Your task to perform on an android device: toggle data saver in the chrome app Image 0: 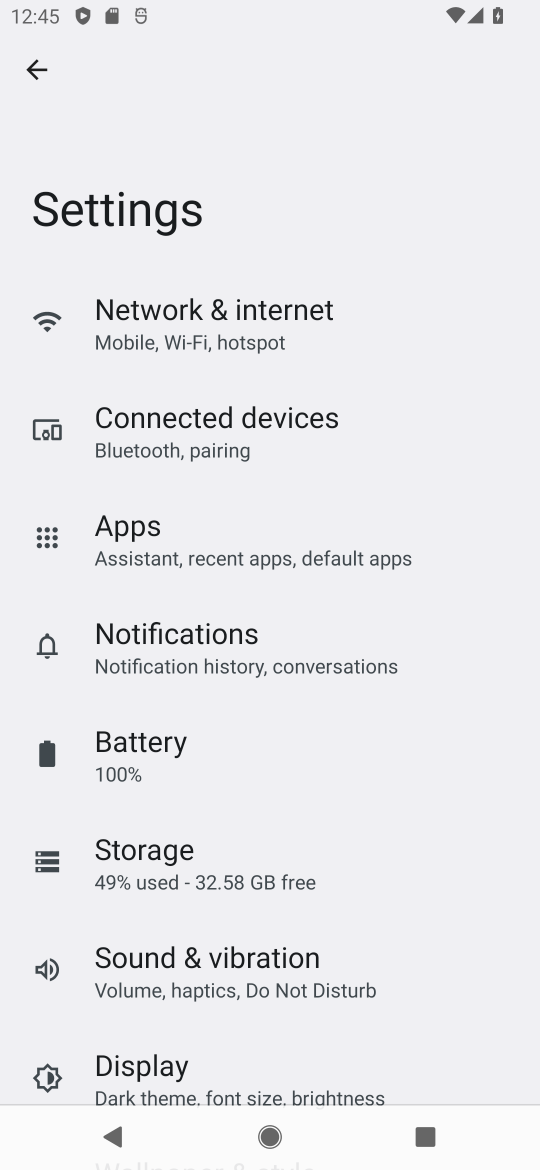
Step 0: press back button
Your task to perform on an android device: toggle data saver in the chrome app Image 1: 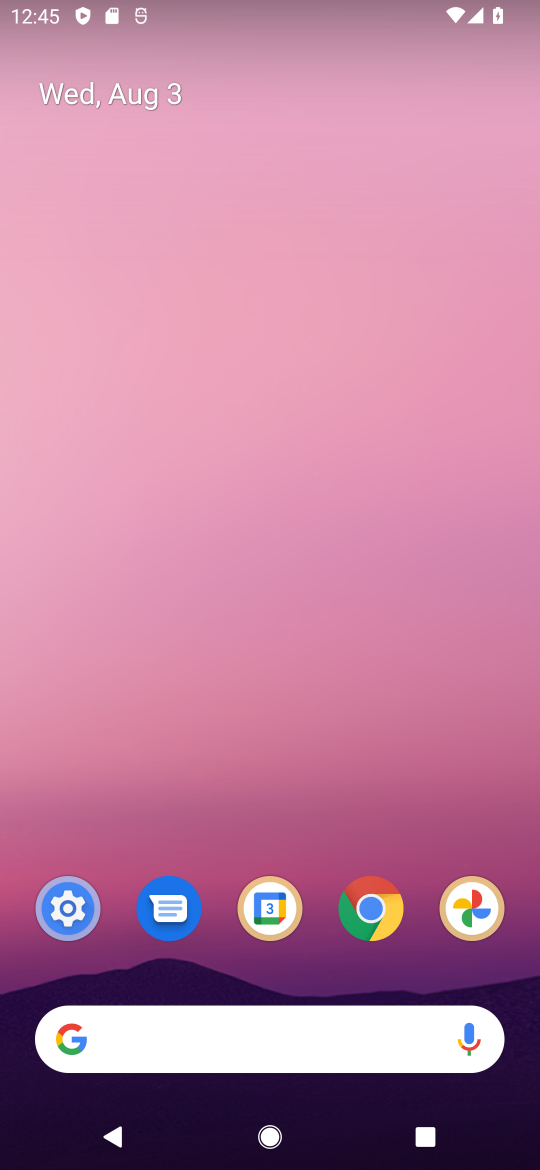
Step 1: click (367, 905)
Your task to perform on an android device: toggle data saver in the chrome app Image 2: 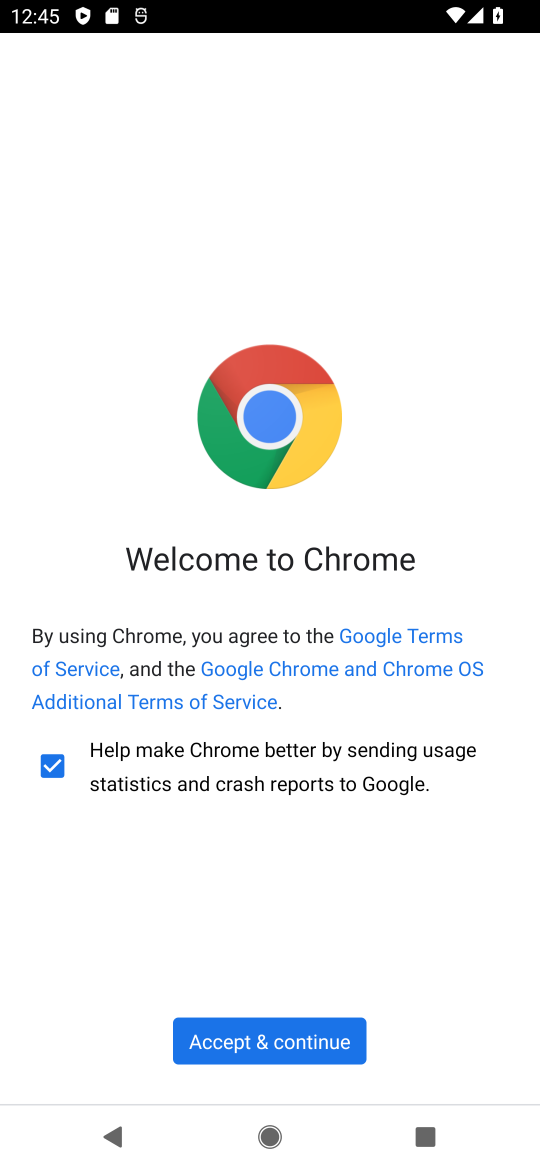
Step 2: click (242, 1035)
Your task to perform on an android device: toggle data saver in the chrome app Image 3: 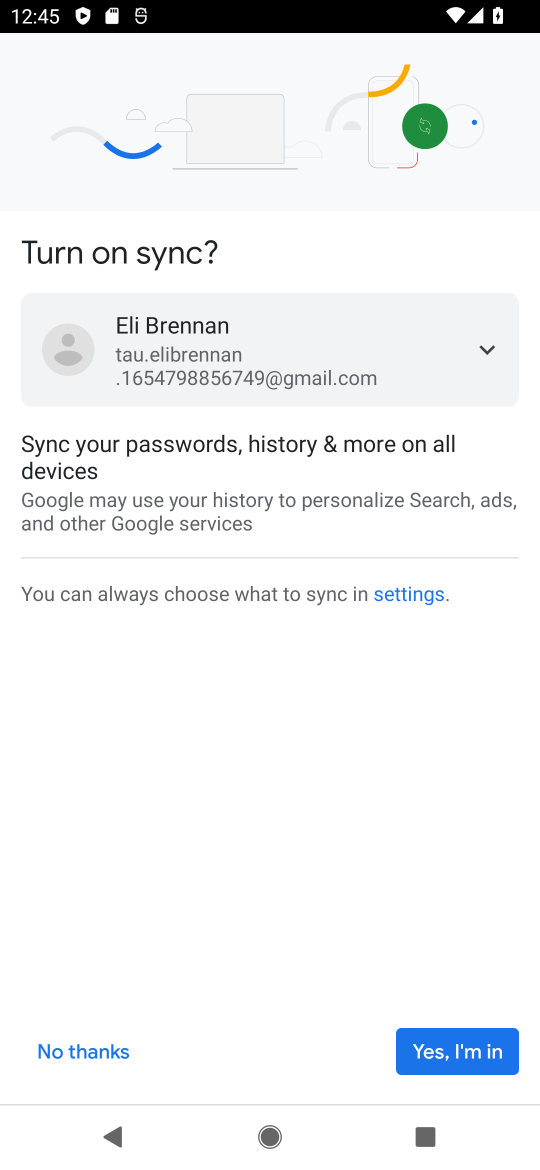
Step 3: click (461, 1057)
Your task to perform on an android device: toggle data saver in the chrome app Image 4: 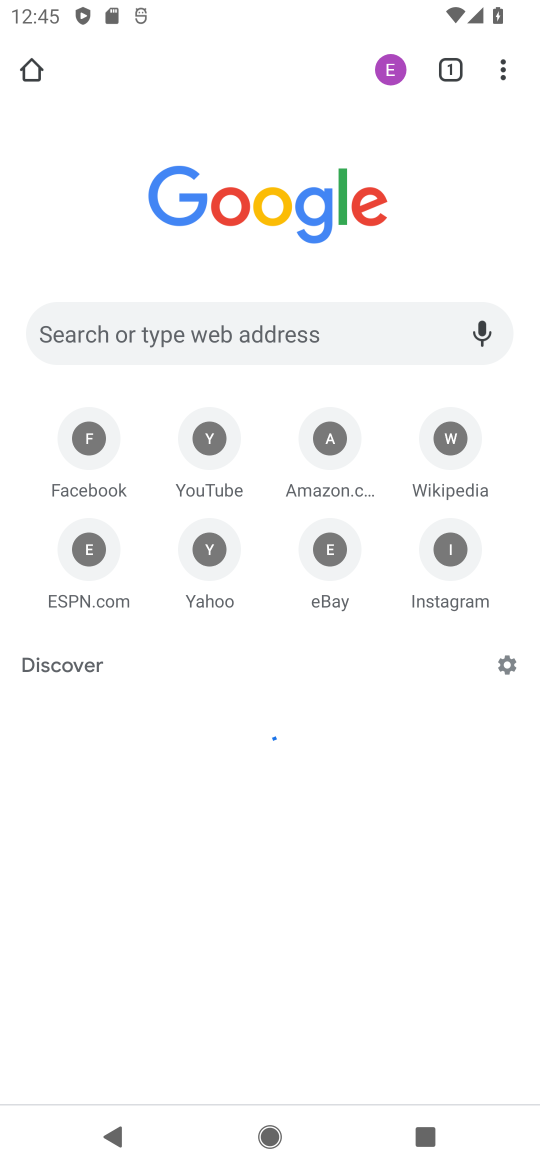
Step 4: click (503, 68)
Your task to perform on an android device: toggle data saver in the chrome app Image 5: 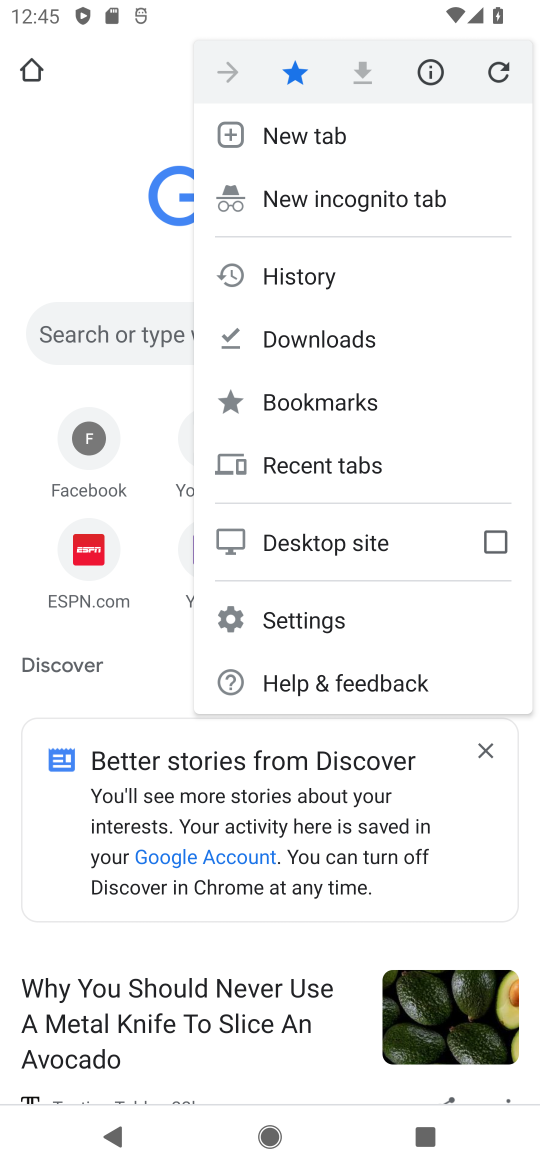
Step 5: click (279, 617)
Your task to perform on an android device: toggle data saver in the chrome app Image 6: 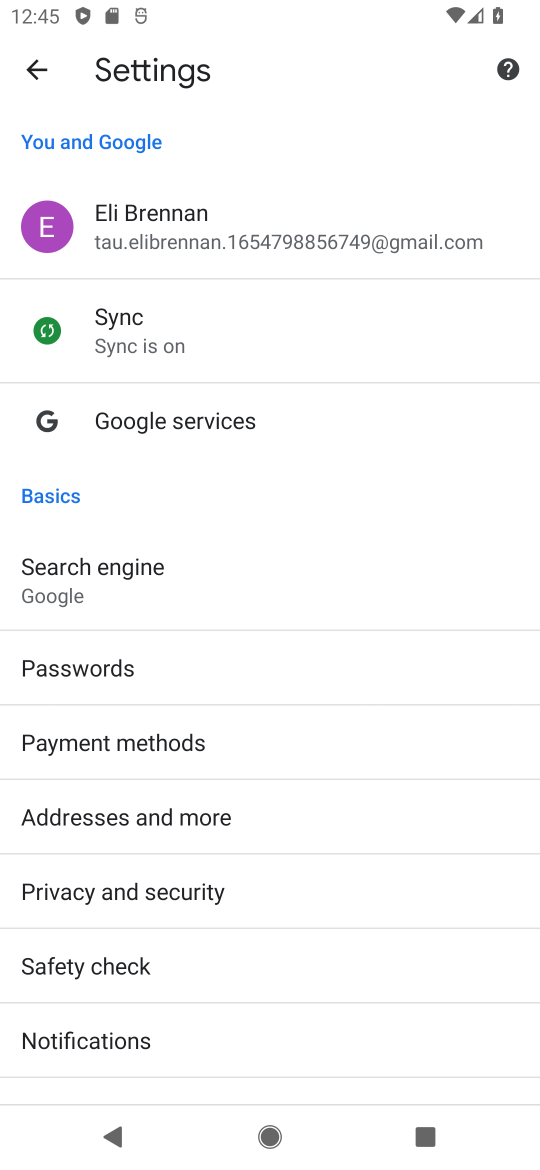
Step 6: drag from (144, 951) to (195, 589)
Your task to perform on an android device: toggle data saver in the chrome app Image 7: 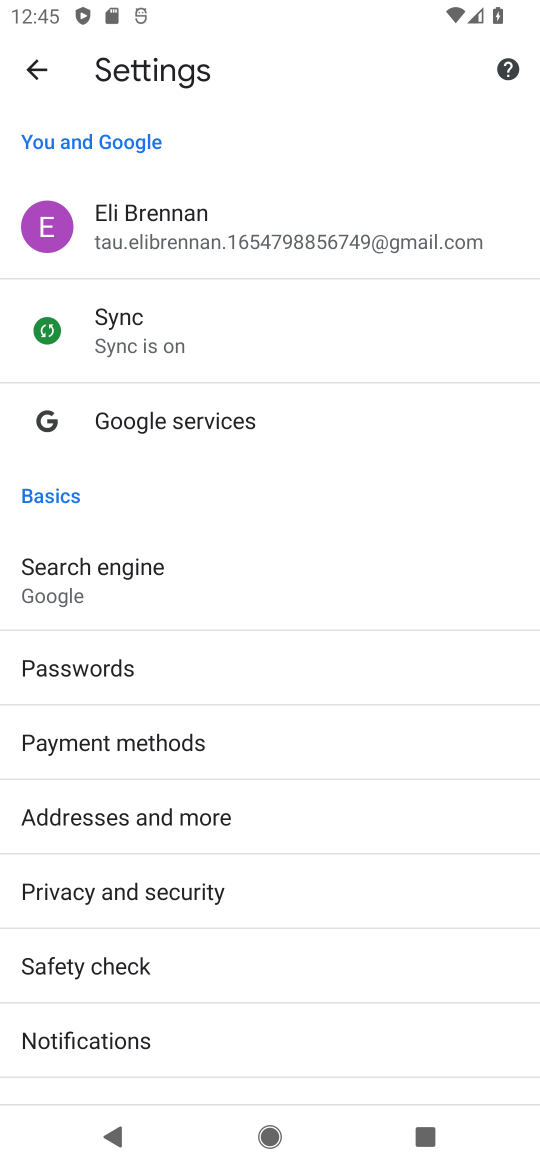
Step 7: drag from (190, 995) to (190, 405)
Your task to perform on an android device: toggle data saver in the chrome app Image 8: 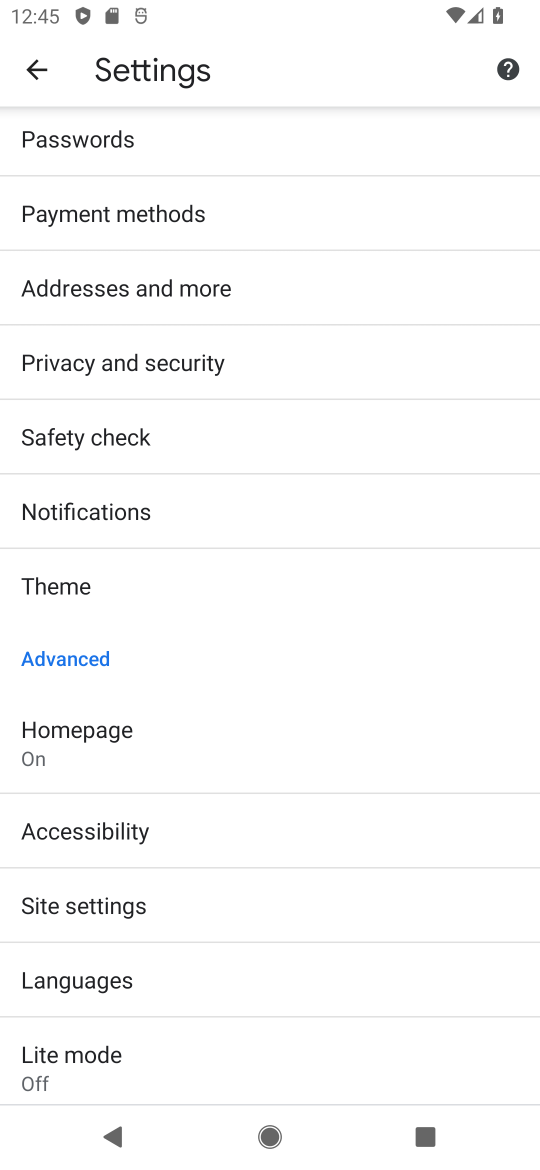
Step 8: click (83, 1073)
Your task to perform on an android device: toggle data saver in the chrome app Image 9: 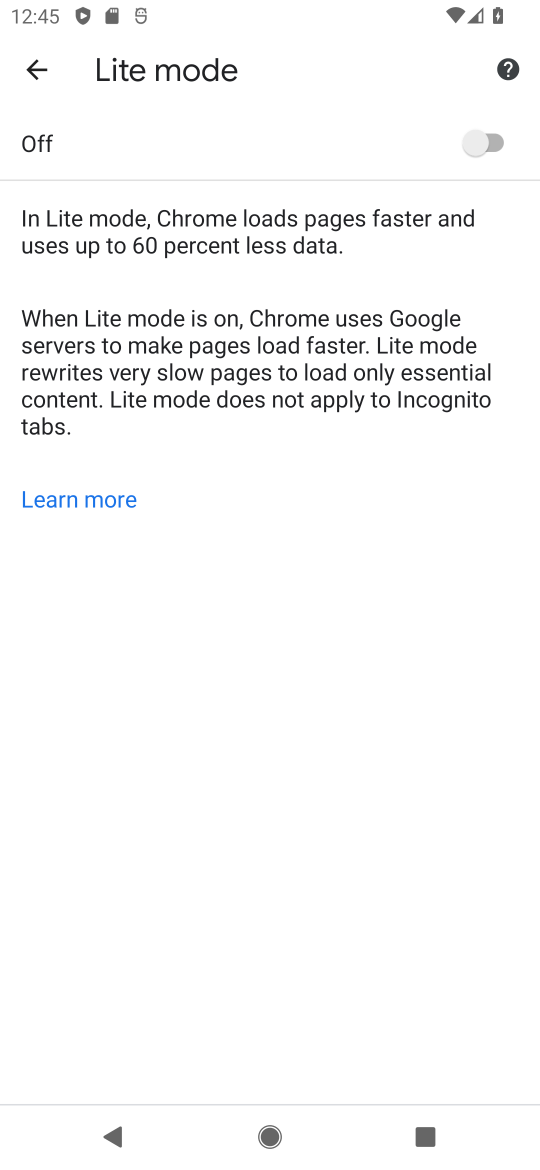
Step 9: click (505, 145)
Your task to perform on an android device: toggle data saver in the chrome app Image 10: 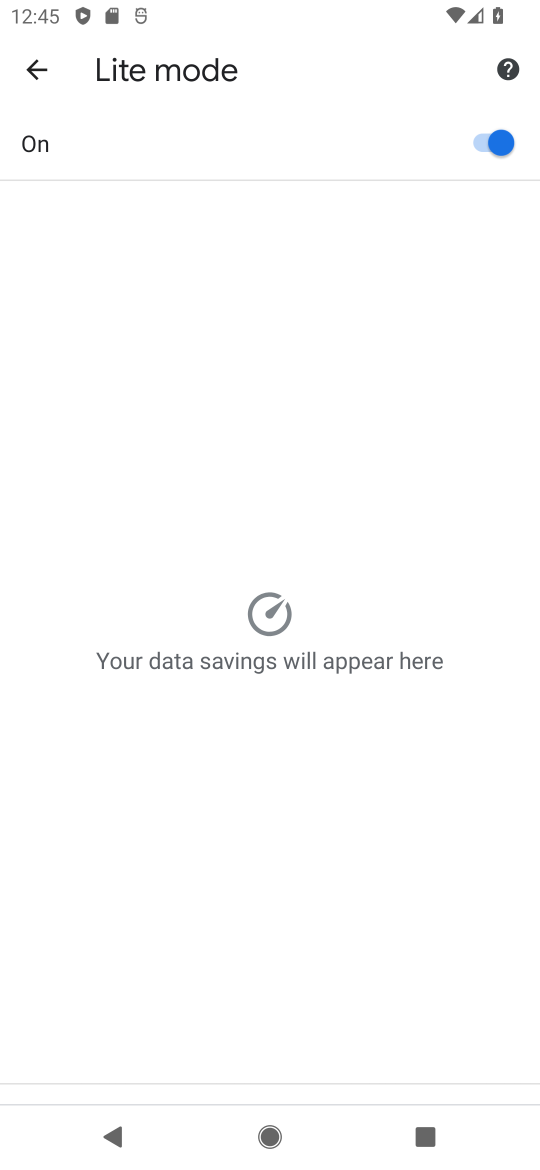
Step 10: task complete